Your task to perform on an android device: check google app version Image 0: 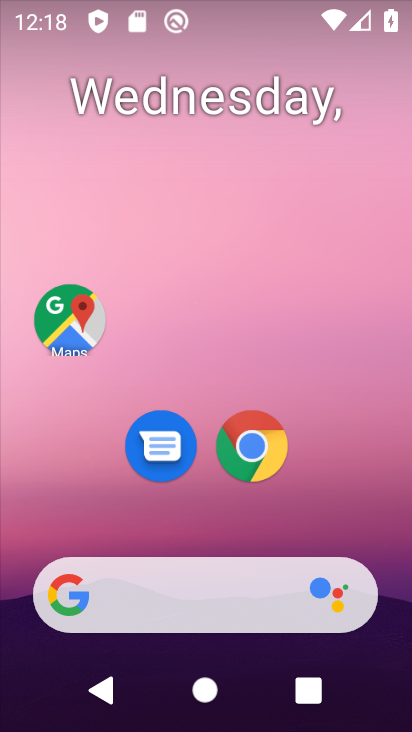
Step 0: click (228, 597)
Your task to perform on an android device: check google app version Image 1: 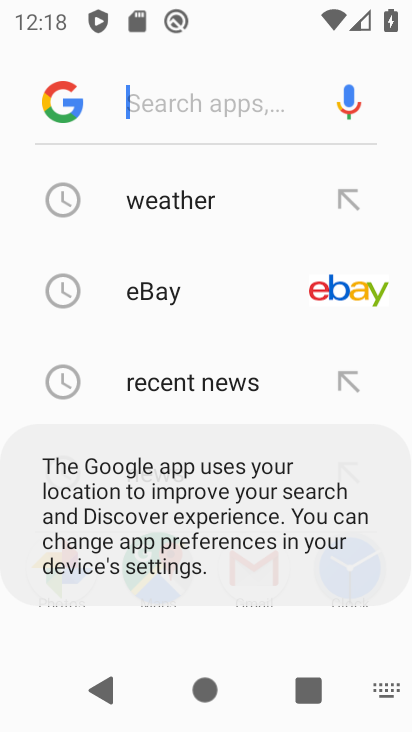
Step 1: click (69, 96)
Your task to perform on an android device: check google app version Image 2: 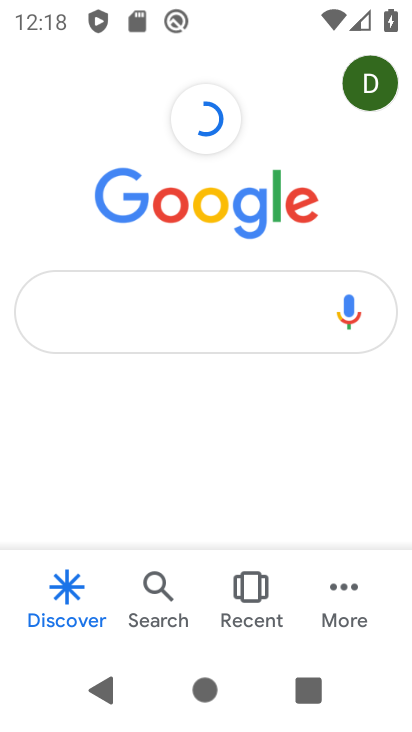
Step 2: click (346, 588)
Your task to perform on an android device: check google app version Image 3: 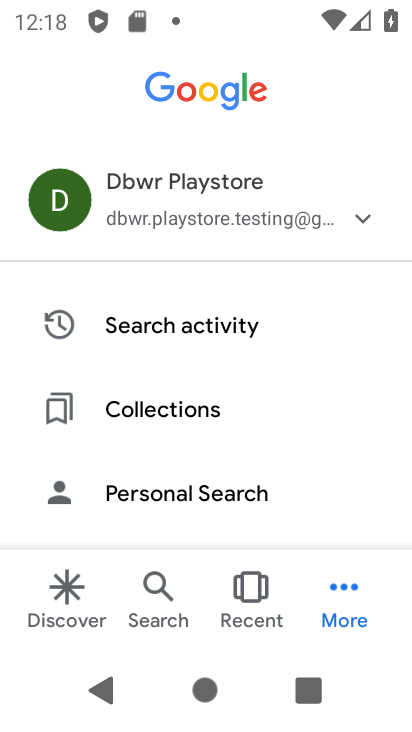
Step 3: drag from (181, 474) to (204, 146)
Your task to perform on an android device: check google app version Image 4: 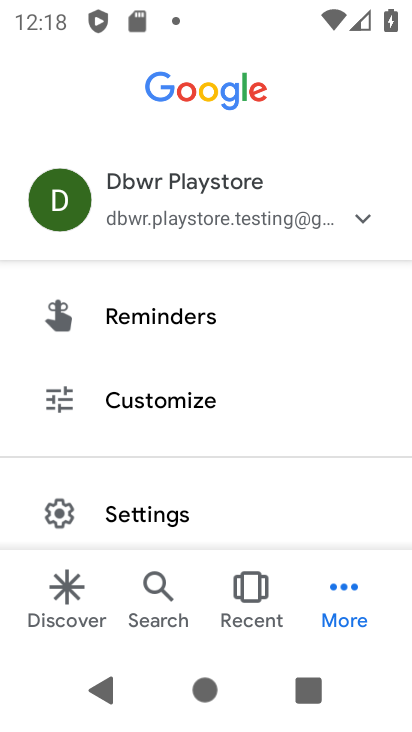
Step 4: click (161, 502)
Your task to perform on an android device: check google app version Image 5: 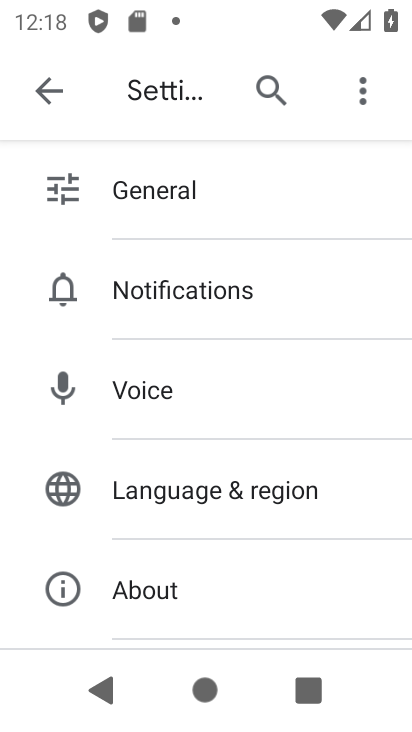
Step 5: drag from (170, 569) to (196, 422)
Your task to perform on an android device: check google app version Image 6: 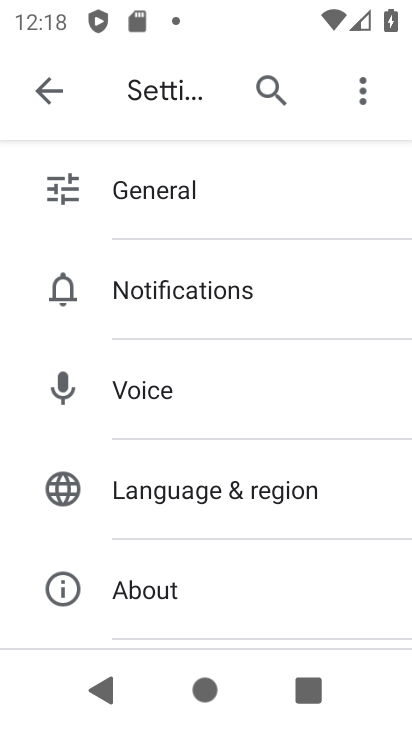
Step 6: click (156, 583)
Your task to perform on an android device: check google app version Image 7: 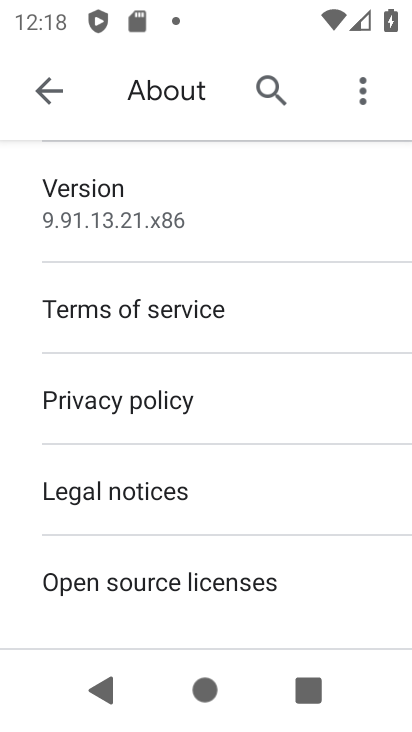
Step 7: task complete